Your task to perform on an android device: Open Amazon Image 0: 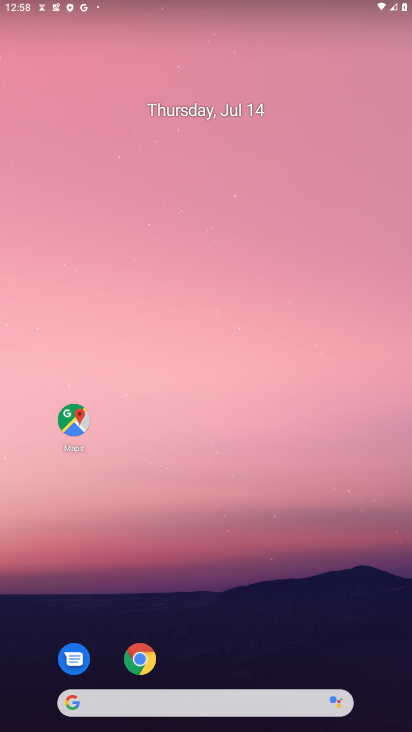
Step 0: drag from (55, 654) to (326, 1)
Your task to perform on an android device: Open Amazon Image 1: 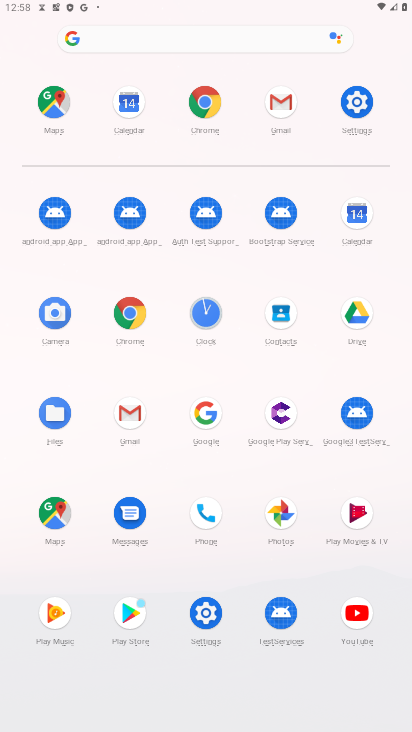
Step 1: click (112, 34)
Your task to perform on an android device: Open Amazon Image 2: 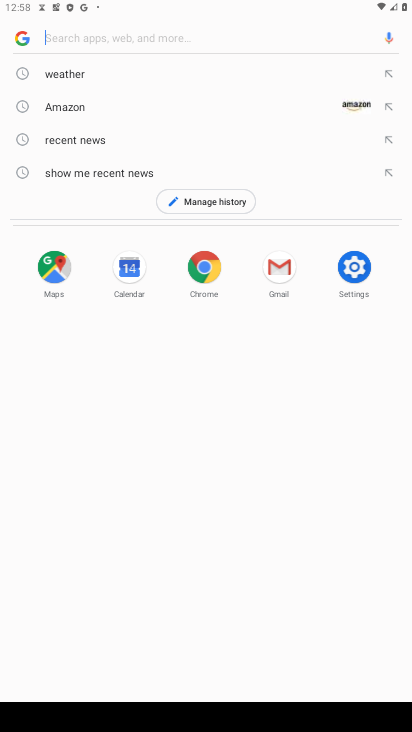
Step 2: type " Amazon"
Your task to perform on an android device: Open Amazon Image 3: 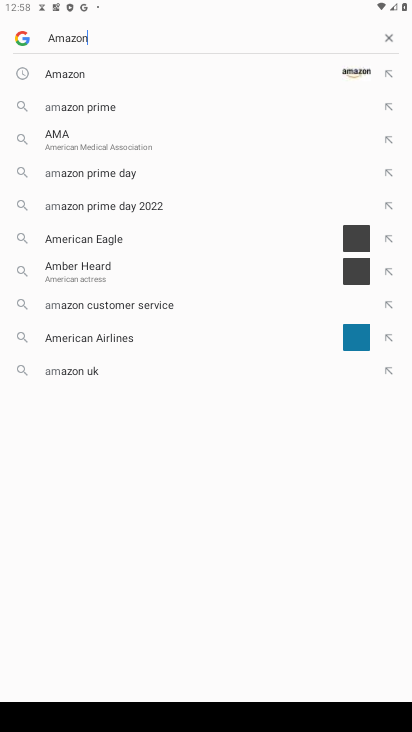
Step 3: type ""
Your task to perform on an android device: Open Amazon Image 4: 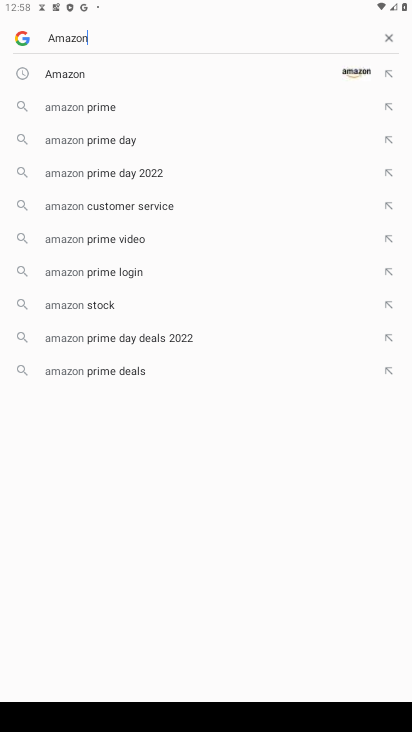
Step 4: click (55, 79)
Your task to perform on an android device: Open Amazon Image 5: 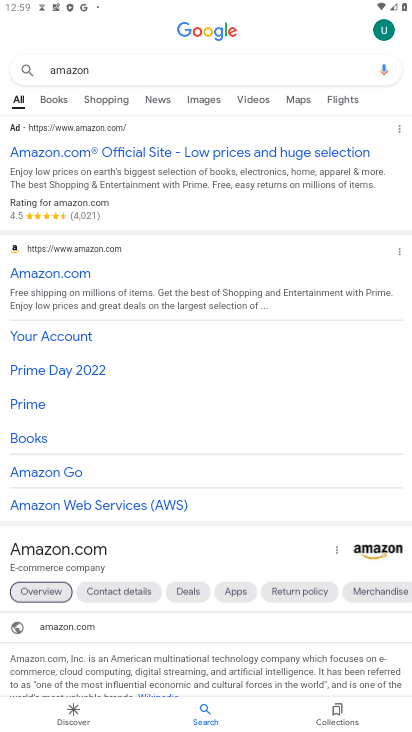
Step 5: task complete